Your task to perform on an android device: Search for Mexican restaurants on Maps Image 0: 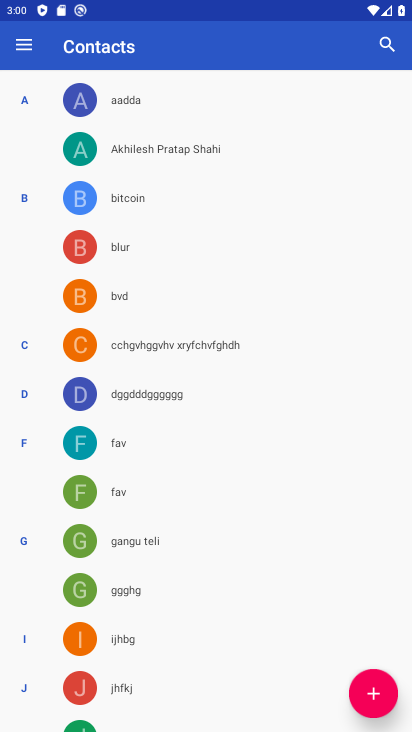
Step 0: press home button
Your task to perform on an android device: Search for Mexican restaurants on Maps Image 1: 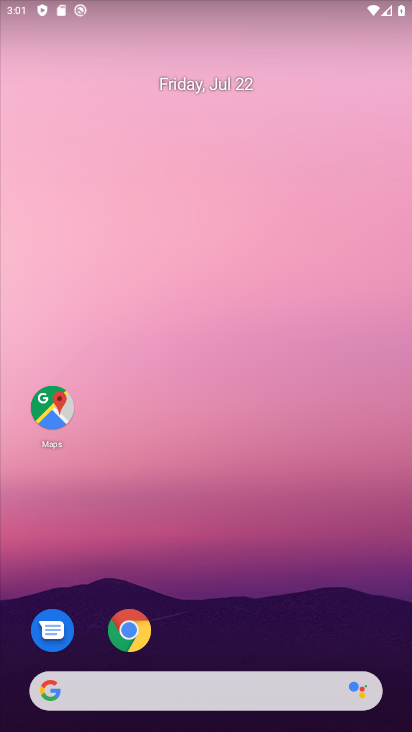
Step 1: click (56, 402)
Your task to perform on an android device: Search for Mexican restaurants on Maps Image 2: 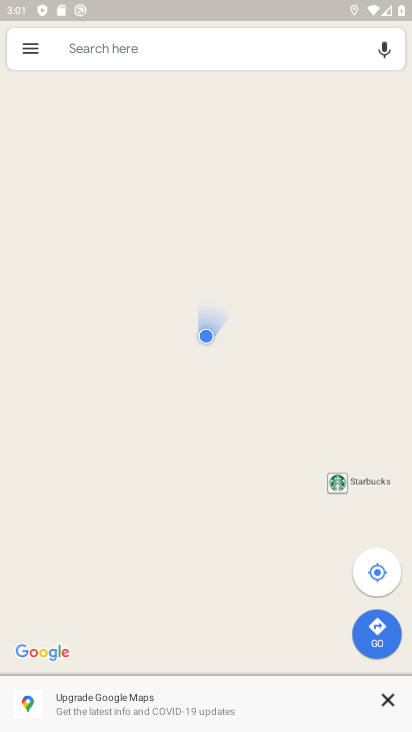
Step 2: click (116, 51)
Your task to perform on an android device: Search for Mexican restaurants on Maps Image 3: 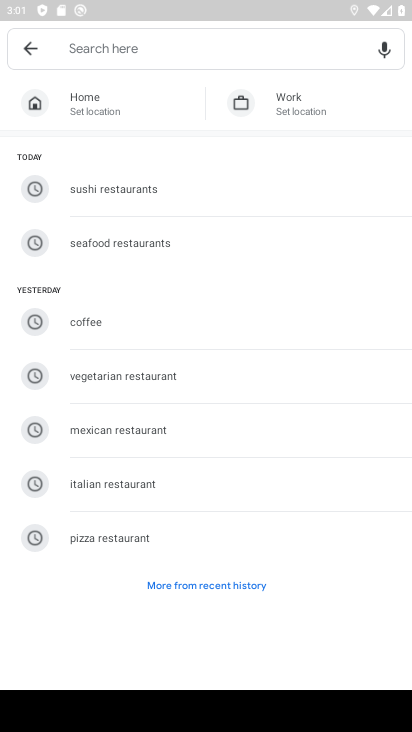
Step 3: type "Mexican restaurants"
Your task to perform on an android device: Search for Mexican restaurants on Maps Image 4: 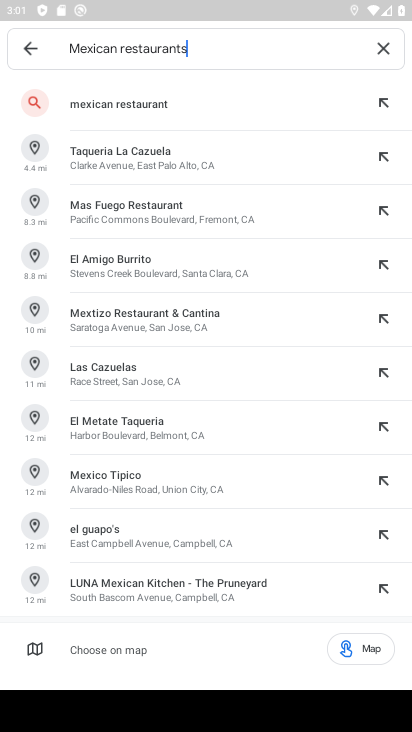
Step 4: click (109, 104)
Your task to perform on an android device: Search for Mexican restaurants on Maps Image 5: 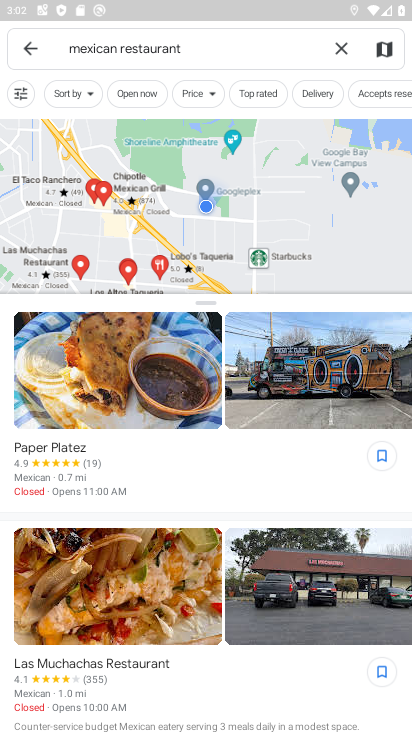
Step 5: task complete